Your task to perform on an android device: toggle javascript in the chrome app Image 0: 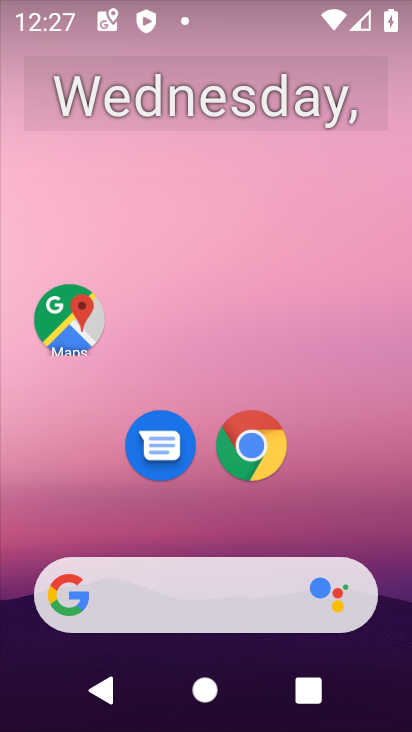
Step 0: click (251, 450)
Your task to perform on an android device: toggle javascript in the chrome app Image 1: 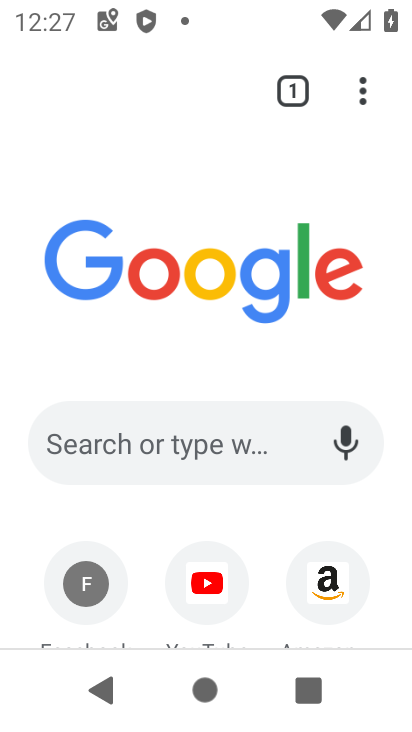
Step 1: drag from (372, 84) to (176, 467)
Your task to perform on an android device: toggle javascript in the chrome app Image 2: 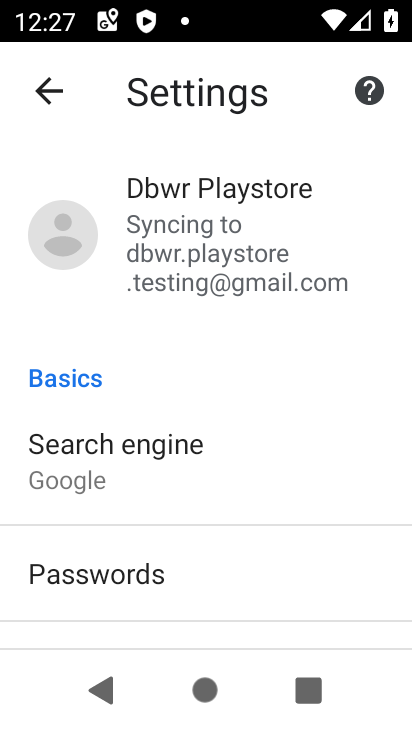
Step 2: drag from (276, 567) to (340, 162)
Your task to perform on an android device: toggle javascript in the chrome app Image 3: 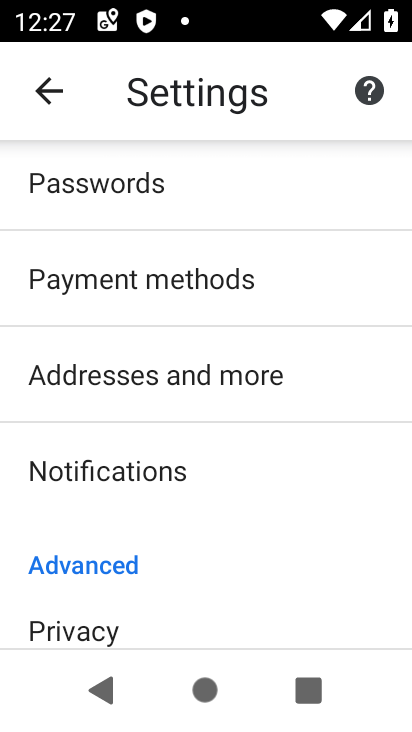
Step 3: drag from (255, 496) to (309, 262)
Your task to perform on an android device: toggle javascript in the chrome app Image 4: 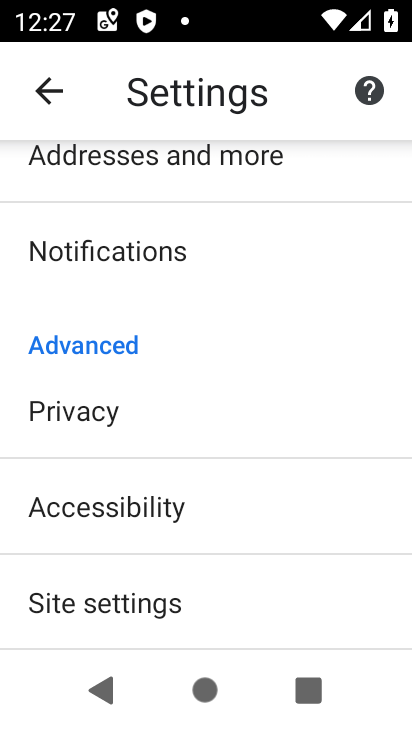
Step 4: drag from (205, 550) to (293, 320)
Your task to perform on an android device: toggle javascript in the chrome app Image 5: 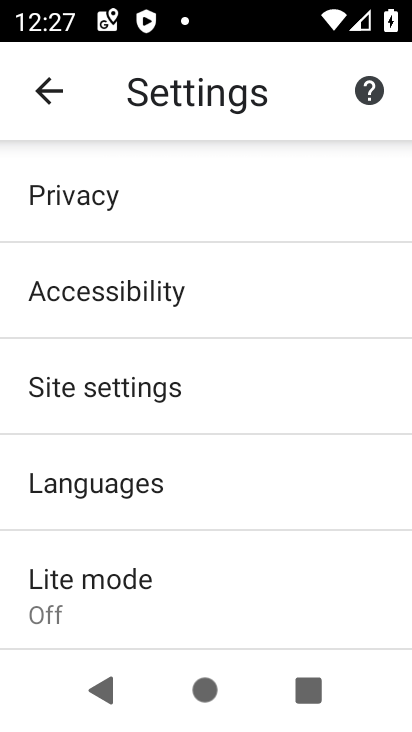
Step 5: click (138, 378)
Your task to perform on an android device: toggle javascript in the chrome app Image 6: 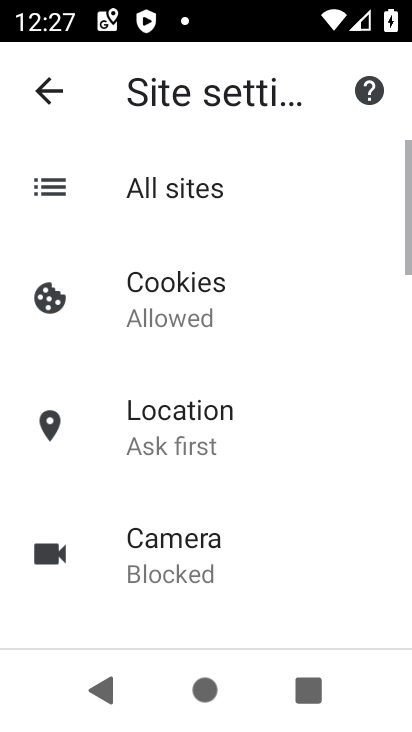
Step 6: drag from (259, 518) to (311, 159)
Your task to perform on an android device: toggle javascript in the chrome app Image 7: 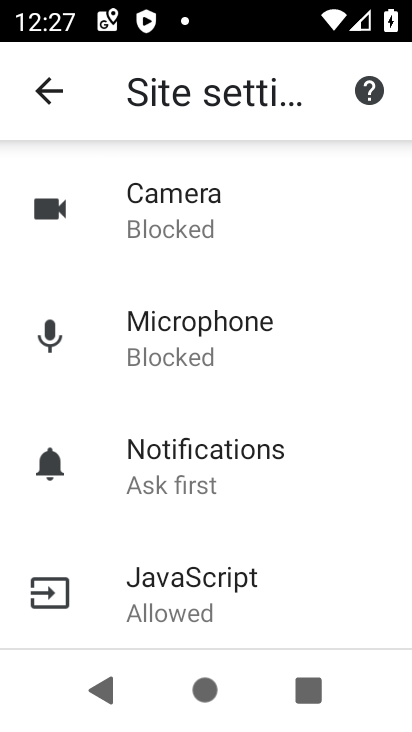
Step 7: click (200, 602)
Your task to perform on an android device: toggle javascript in the chrome app Image 8: 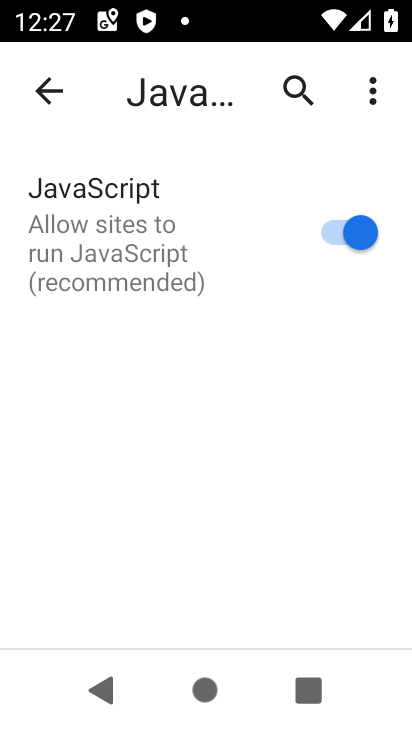
Step 8: click (343, 244)
Your task to perform on an android device: toggle javascript in the chrome app Image 9: 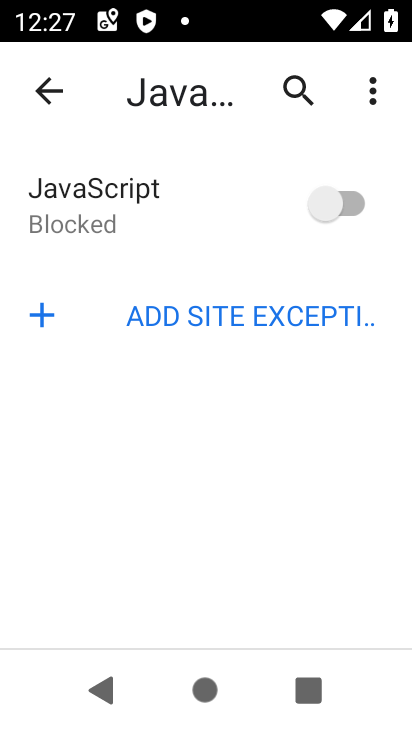
Step 9: task complete